Your task to perform on an android device: Go to Maps Image 0: 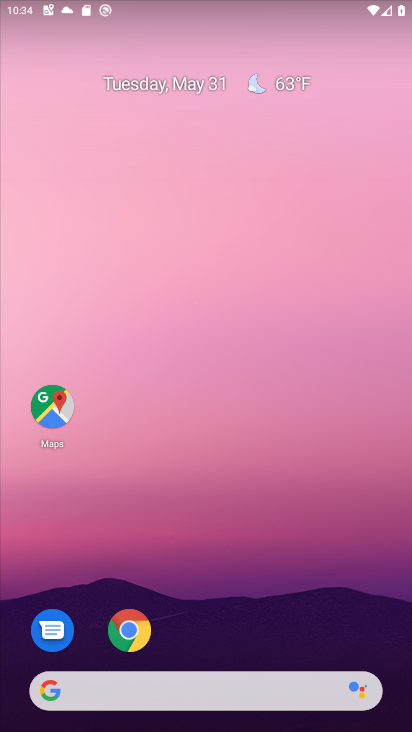
Step 0: click (54, 401)
Your task to perform on an android device: Go to Maps Image 1: 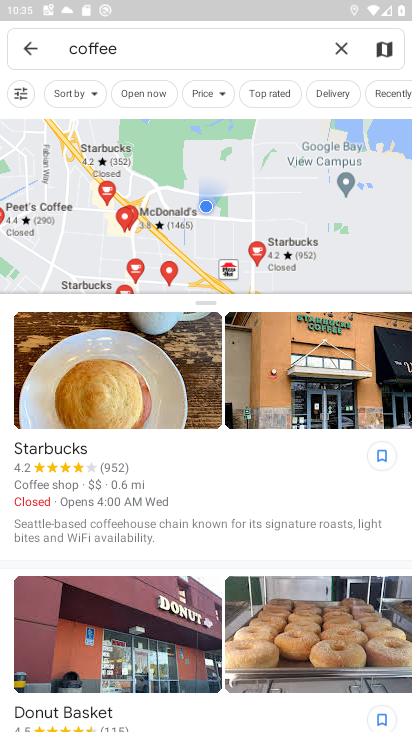
Step 1: task complete